Your task to perform on an android device: see tabs open on other devices in the chrome app Image 0: 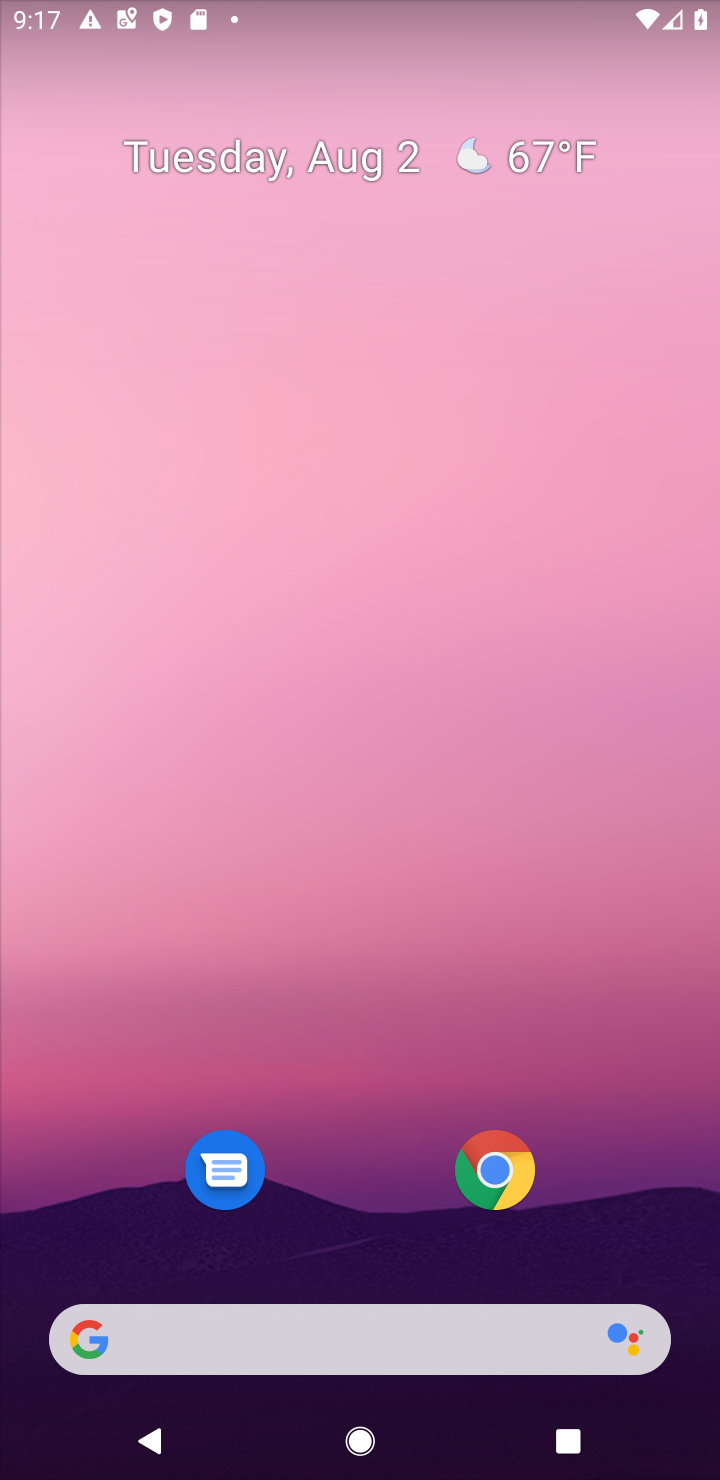
Step 0: click (498, 1169)
Your task to perform on an android device: see tabs open on other devices in the chrome app Image 1: 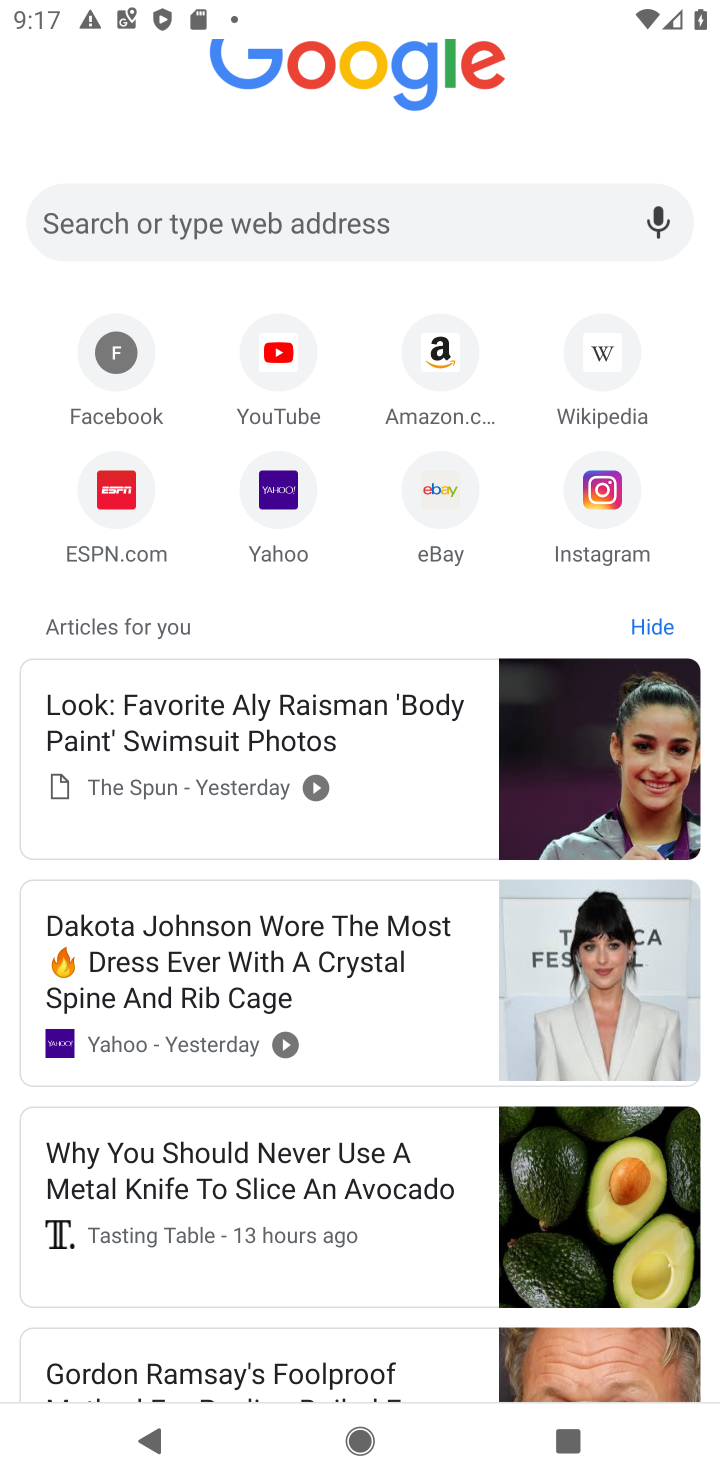
Step 1: drag from (612, 697) to (585, 1322)
Your task to perform on an android device: see tabs open on other devices in the chrome app Image 2: 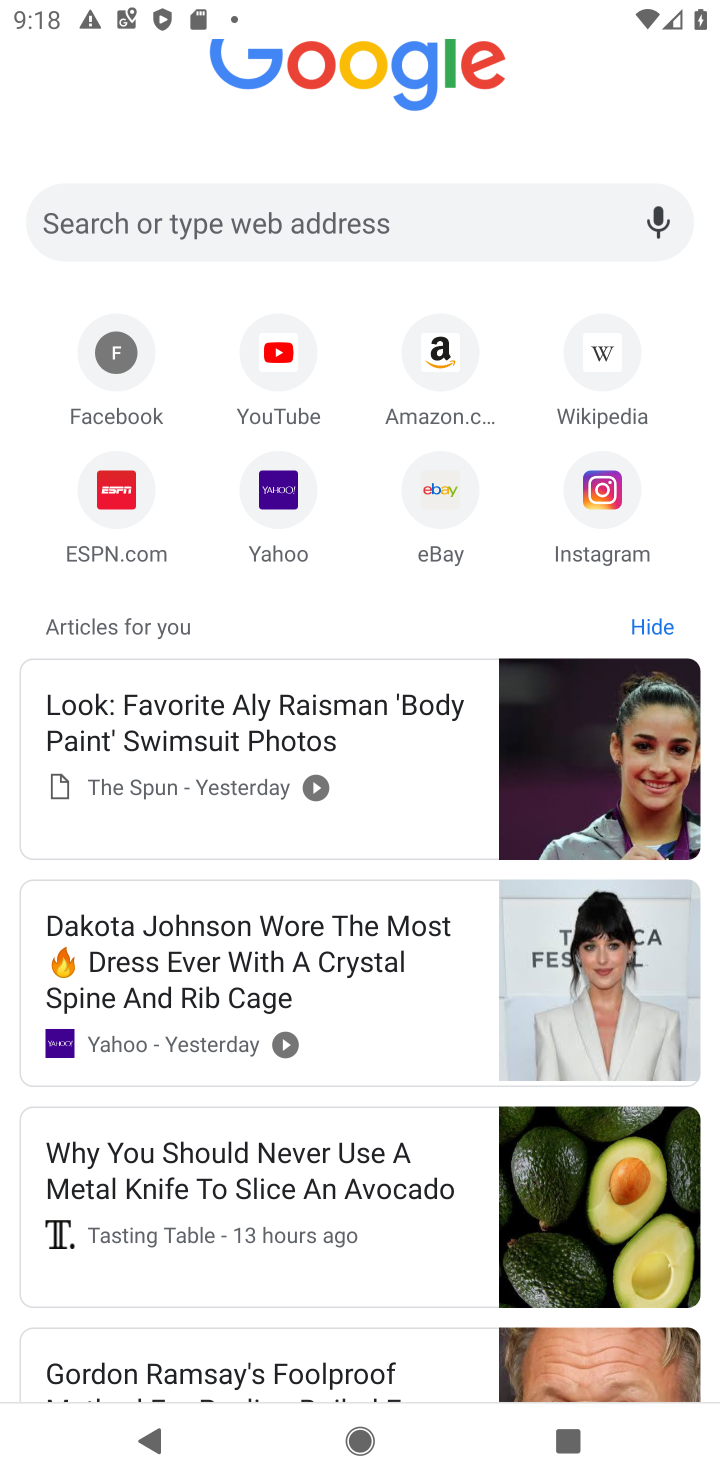
Step 2: drag from (559, 410) to (573, 1476)
Your task to perform on an android device: see tabs open on other devices in the chrome app Image 3: 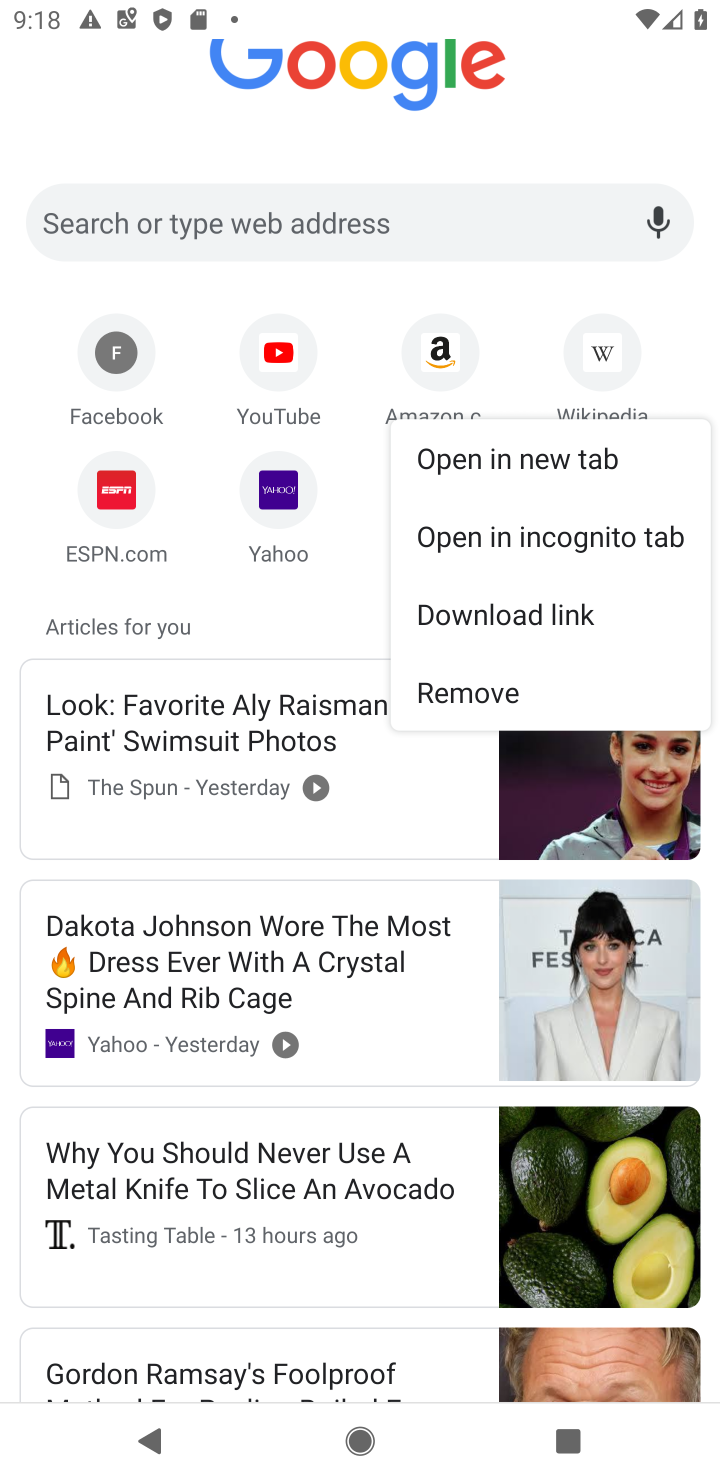
Step 3: drag from (548, 91) to (526, 939)
Your task to perform on an android device: see tabs open on other devices in the chrome app Image 4: 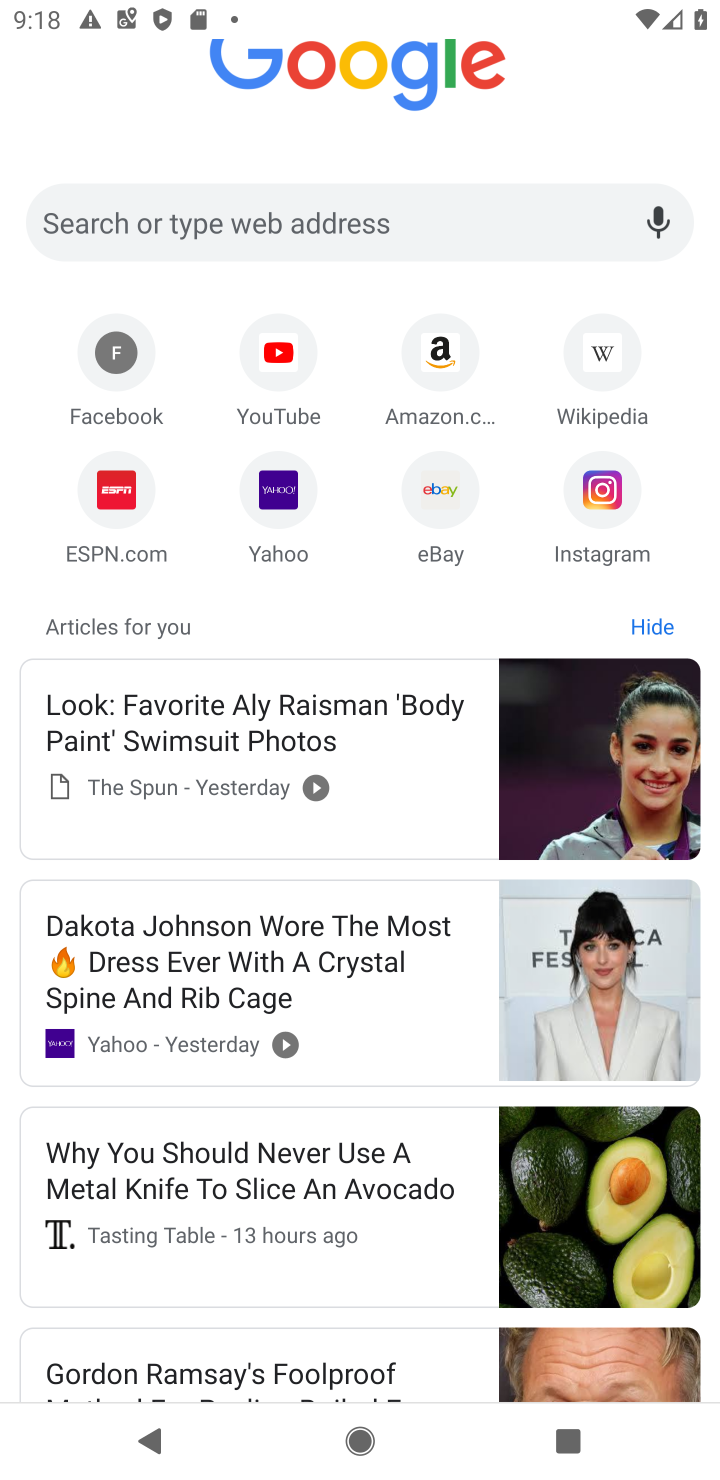
Step 4: drag from (531, 457) to (430, 1099)
Your task to perform on an android device: see tabs open on other devices in the chrome app Image 5: 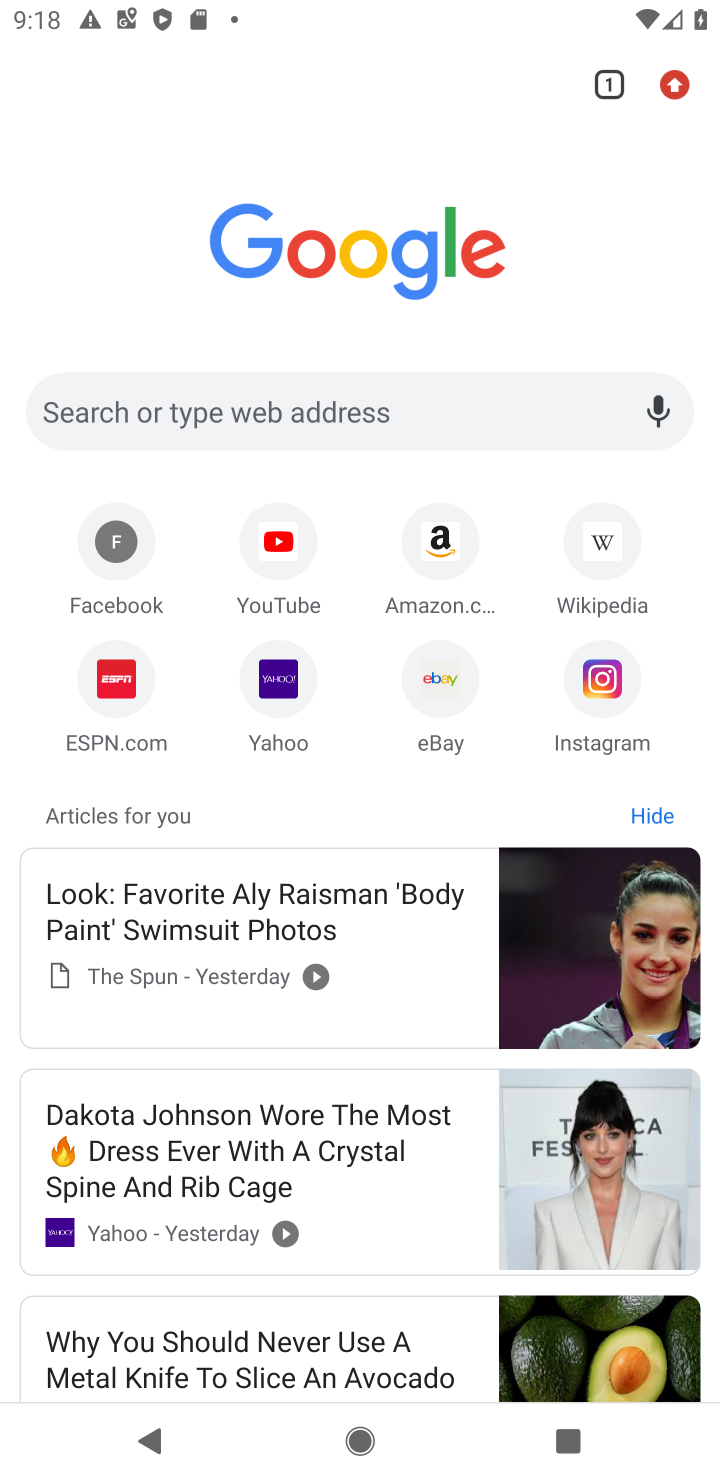
Step 5: click (673, 83)
Your task to perform on an android device: see tabs open on other devices in the chrome app Image 6: 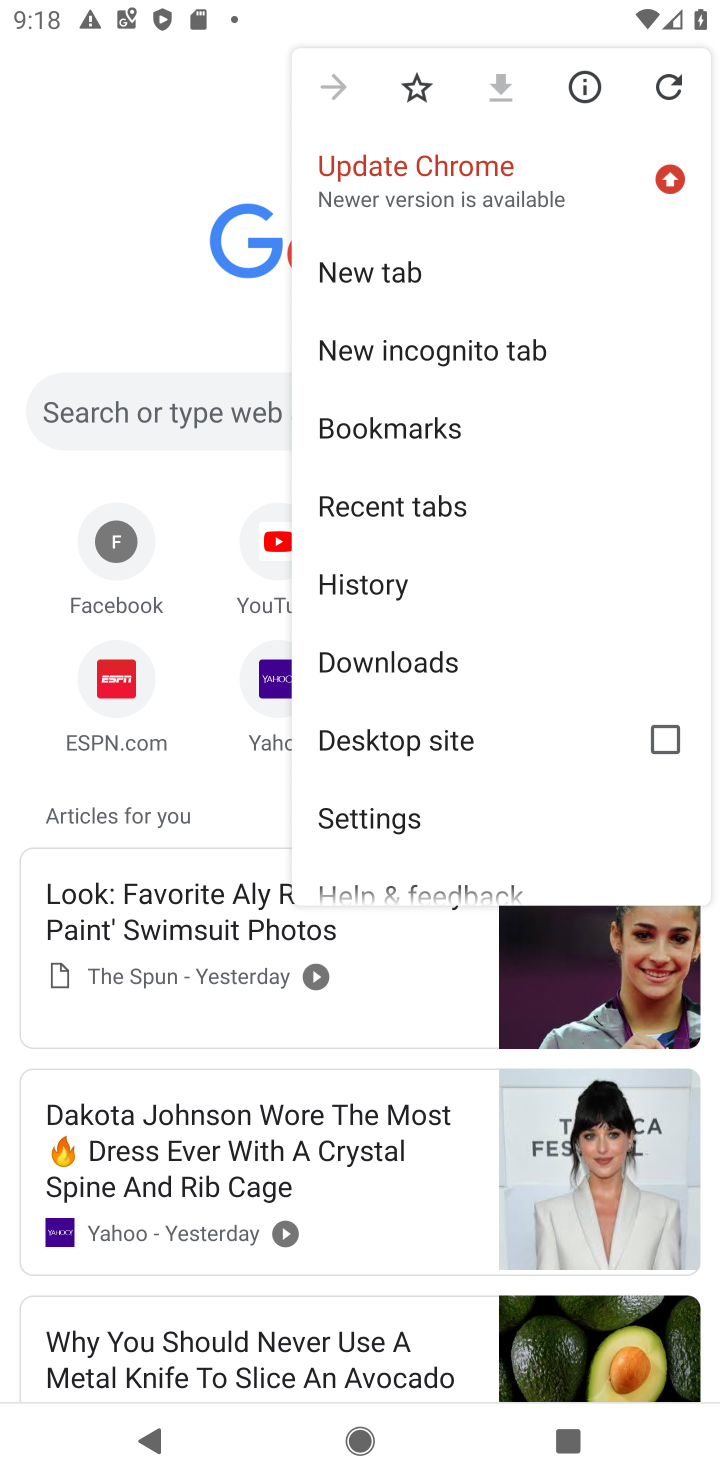
Step 6: click (370, 278)
Your task to perform on an android device: see tabs open on other devices in the chrome app Image 7: 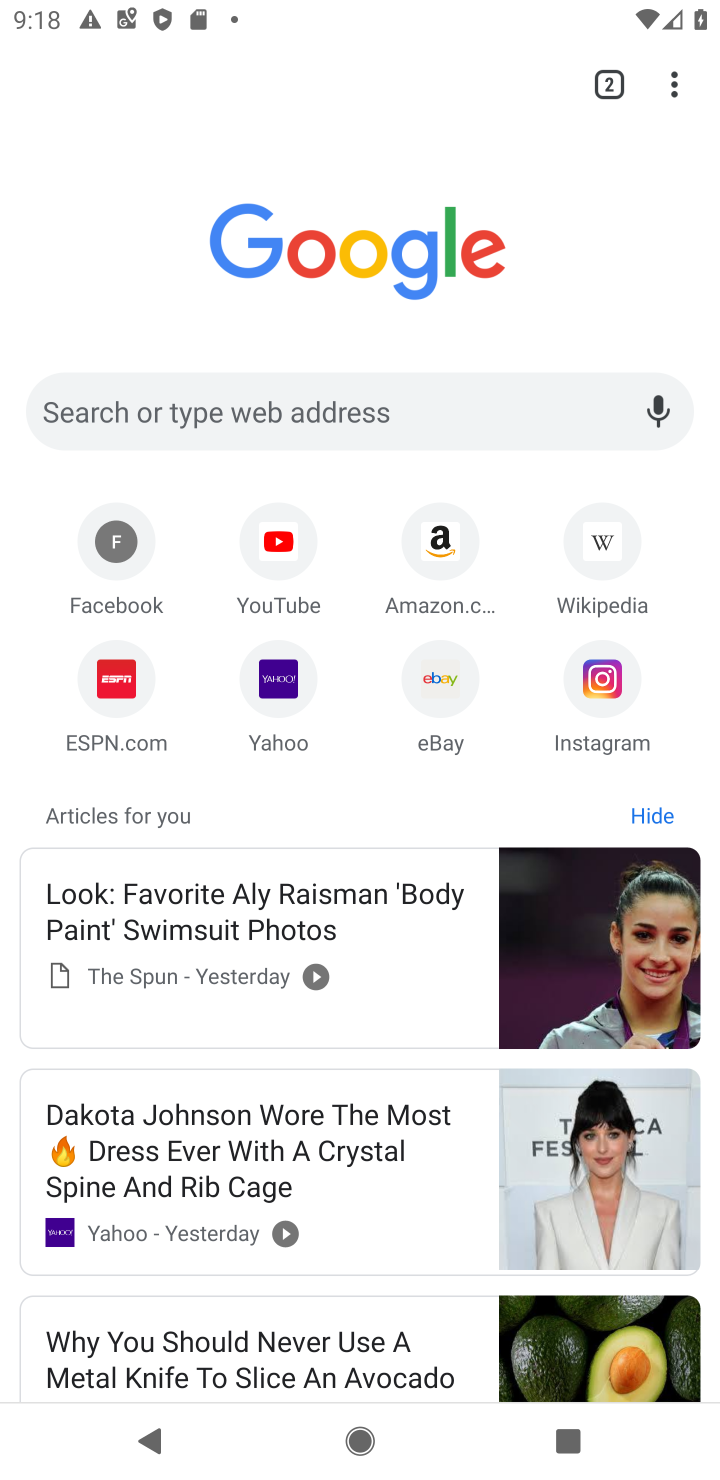
Step 7: task complete